Your task to perform on an android device: Open sound settings Image 0: 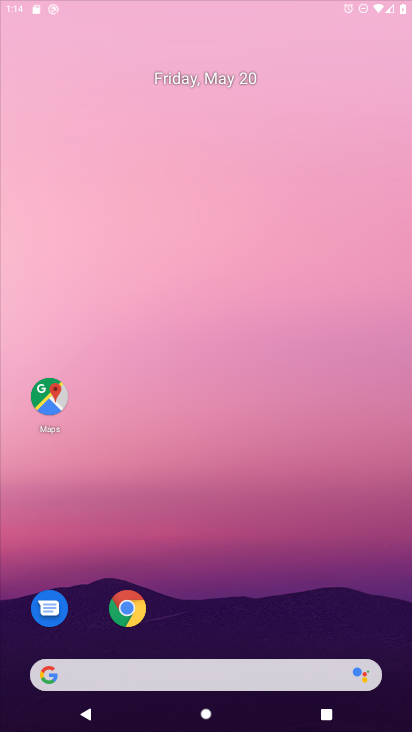
Step 0: press home button
Your task to perform on an android device: Open sound settings Image 1: 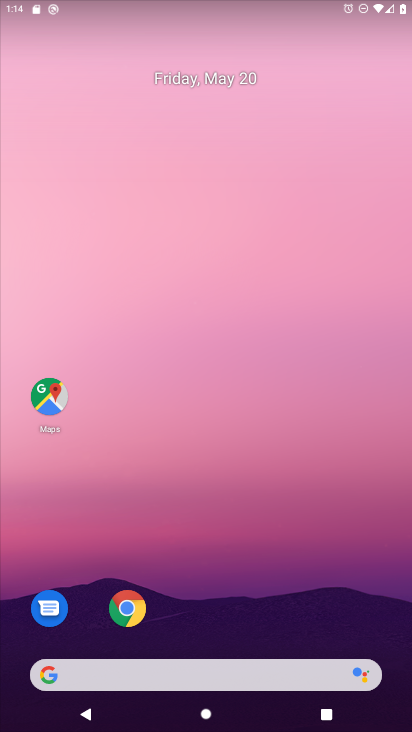
Step 1: drag from (306, 614) to (297, 40)
Your task to perform on an android device: Open sound settings Image 2: 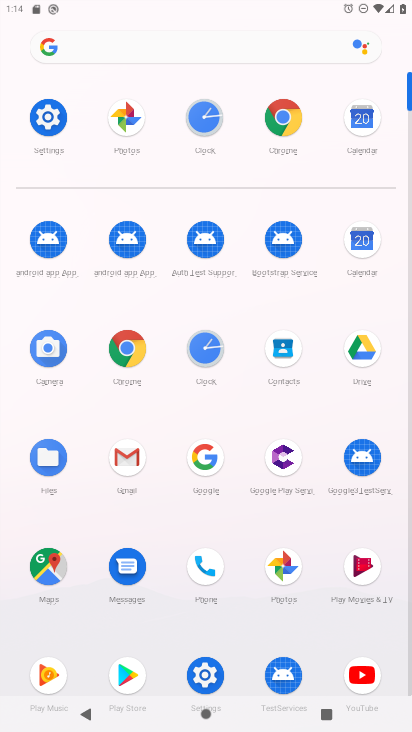
Step 2: click (37, 129)
Your task to perform on an android device: Open sound settings Image 3: 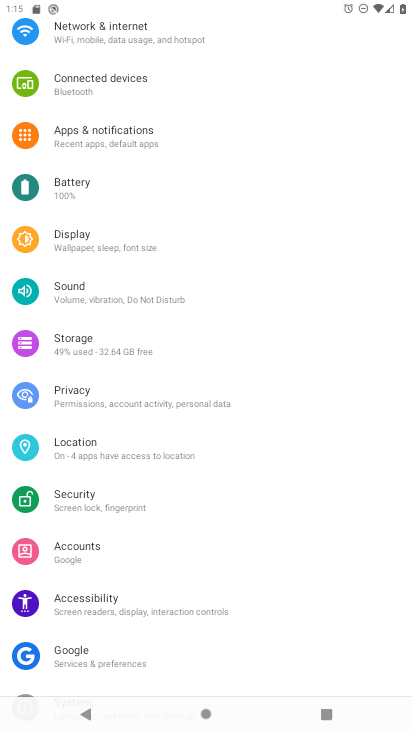
Step 3: click (63, 295)
Your task to perform on an android device: Open sound settings Image 4: 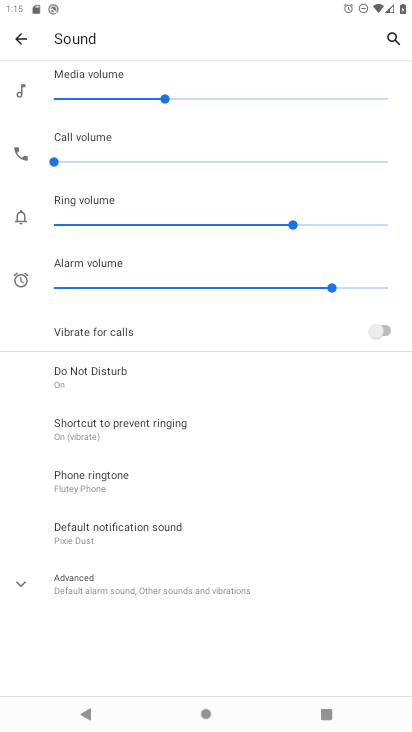
Step 4: task complete